Your task to perform on an android device: turn on javascript in the chrome app Image 0: 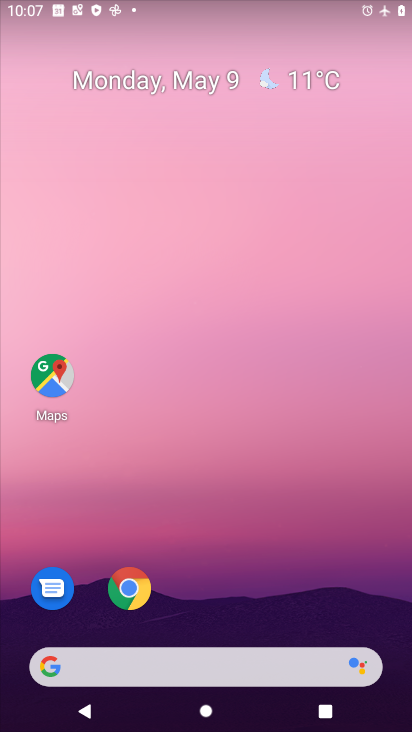
Step 0: drag from (374, 627) to (360, 8)
Your task to perform on an android device: turn on javascript in the chrome app Image 1: 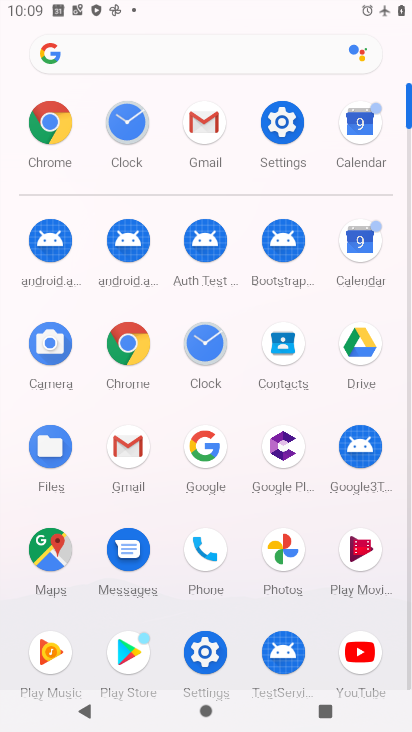
Step 1: click (129, 357)
Your task to perform on an android device: turn on javascript in the chrome app Image 2: 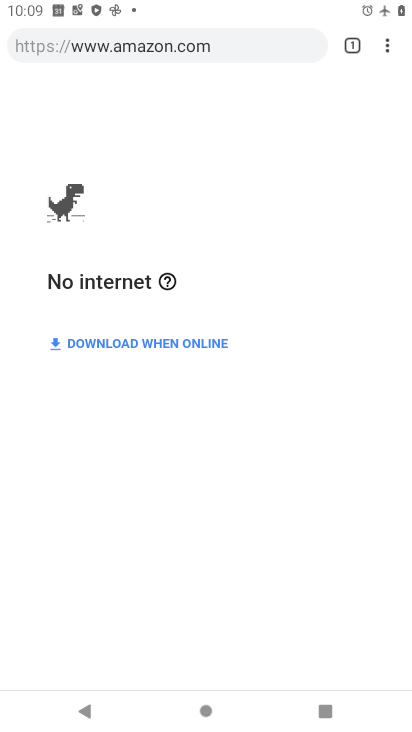
Step 2: click (386, 39)
Your task to perform on an android device: turn on javascript in the chrome app Image 3: 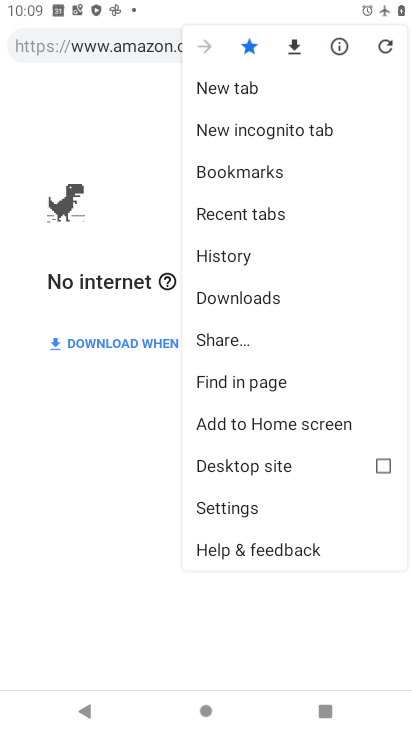
Step 3: click (252, 502)
Your task to perform on an android device: turn on javascript in the chrome app Image 4: 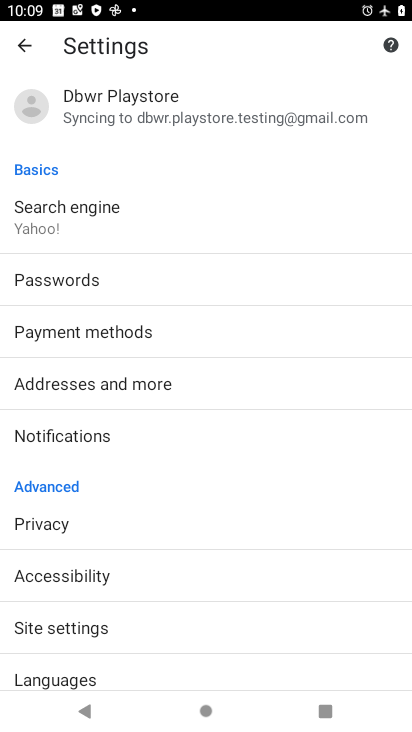
Step 4: click (111, 626)
Your task to perform on an android device: turn on javascript in the chrome app Image 5: 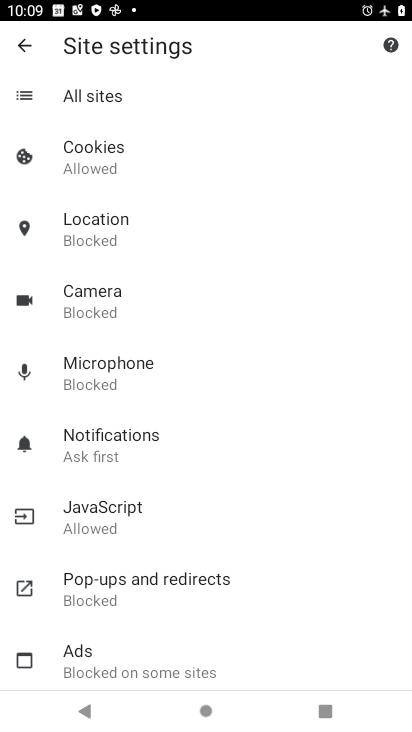
Step 5: click (139, 501)
Your task to perform on an android device: turn on javascript in the chrome app Image 6: 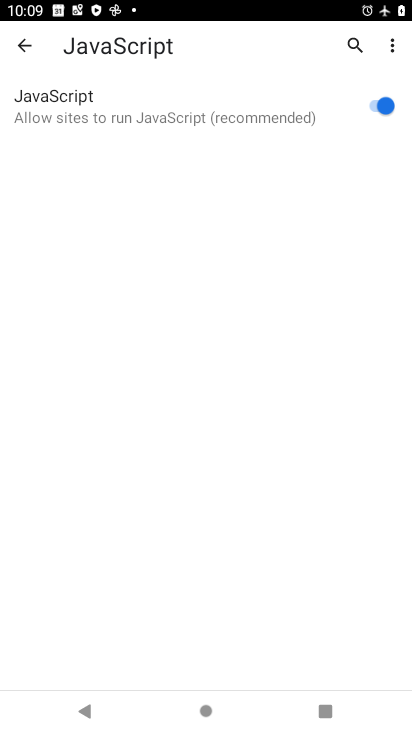
Step 6: task complete